Your task to perform on an android device: find photos in the google photos app Image 0: 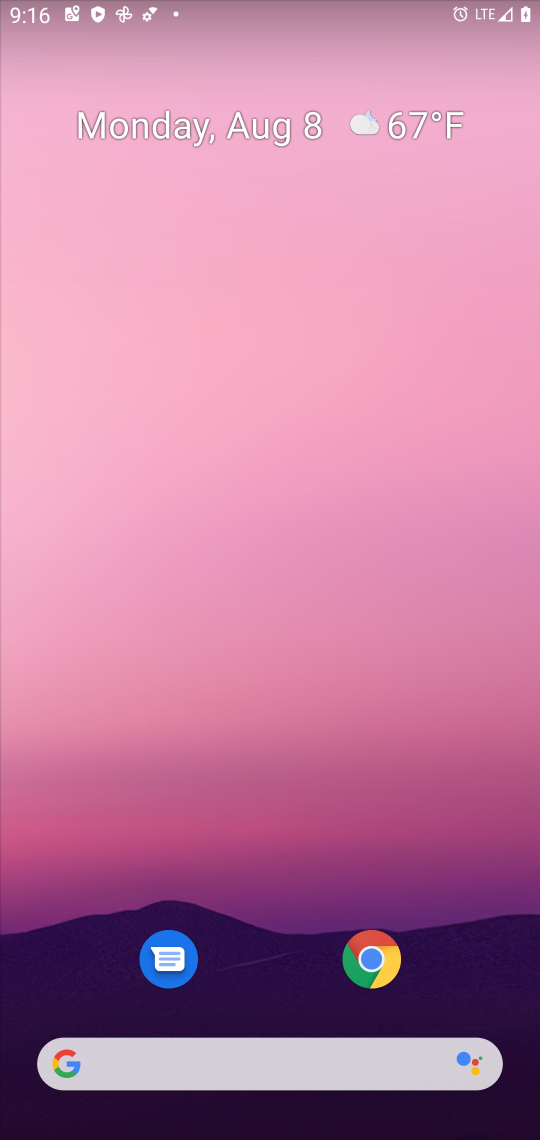
Step 0: drag from (462, 966) to (356, 6)
Your task to perform on an android device: find photos in the google photos app Image 1: 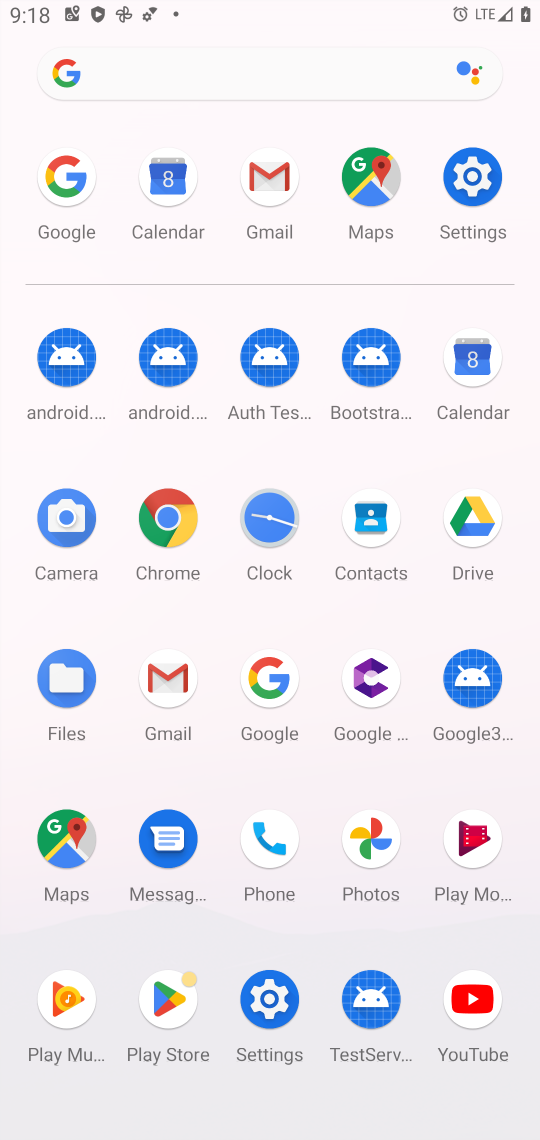
Step 1: click (361, 837)
Your task to perform on an android device: find photos in the google photos app Image 2: 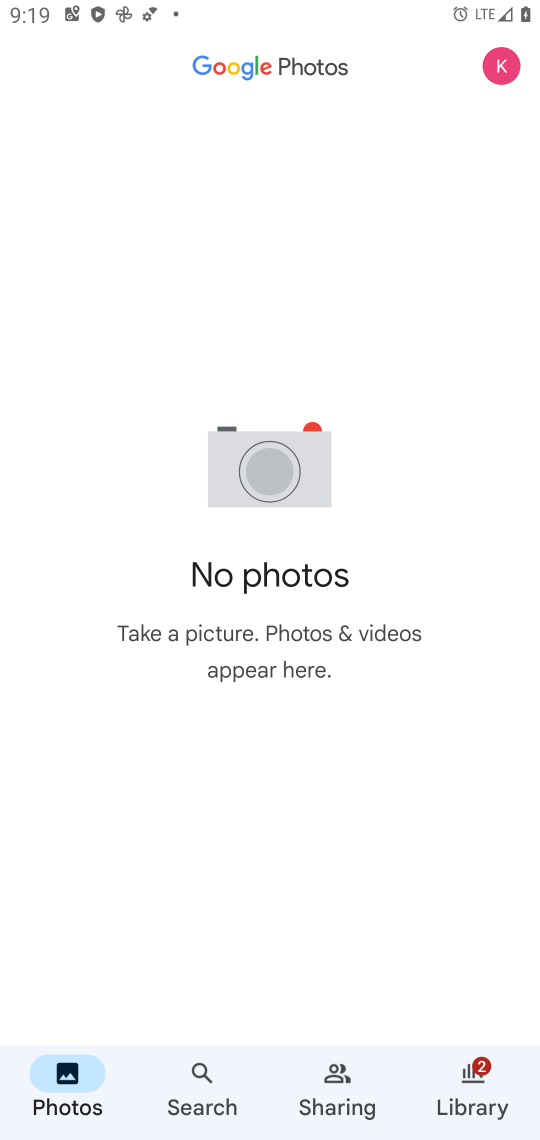
Step 2: task complete